Your task to perform on an android device: Go to internet settings Image 0: 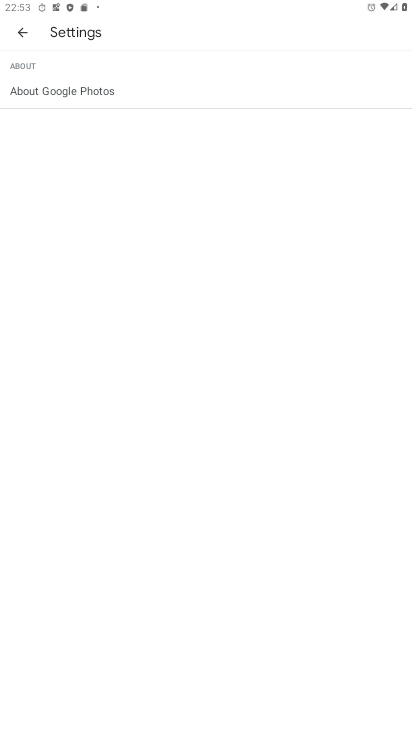
Step 0: press home button
Your task to perform on an android device: Go to internet settings Image 1: 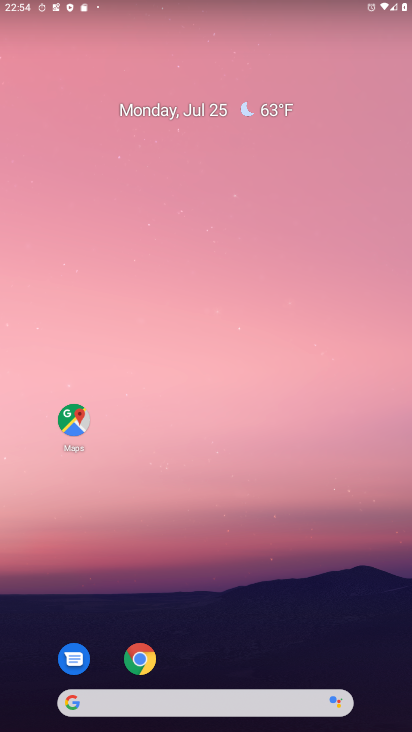
Step 1: drag from (215, 730) to (208, 79)
Your task to perform on an android device: Go to internet settings Image 2: 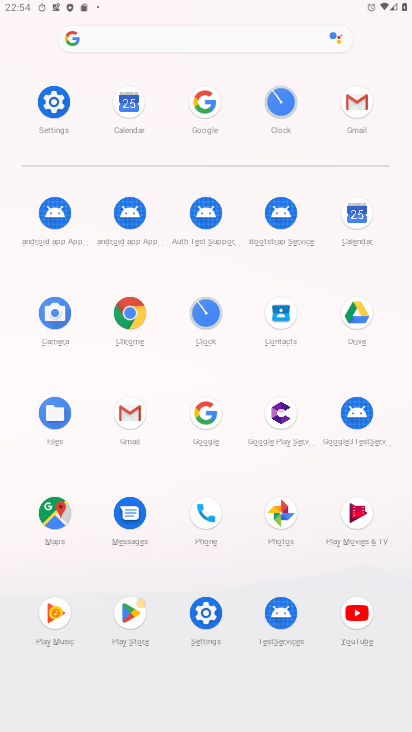
Step 2: click (51, 105)
Your task to perform on an android device: Go to internet settings Image 3: 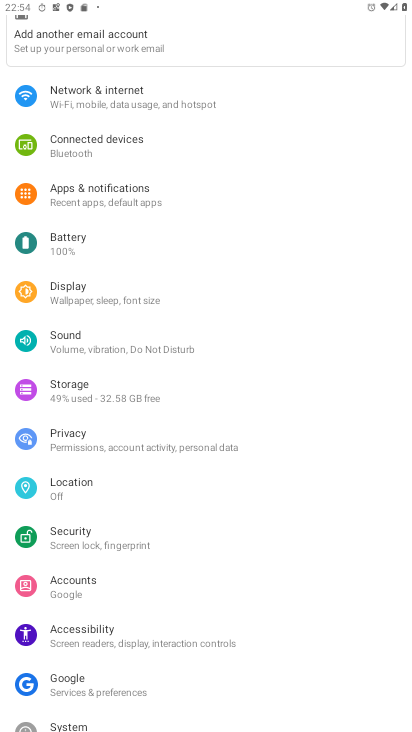
Step 3: click (98, 93)
Your task to perform on an android device: Go to internet settings Image 4: 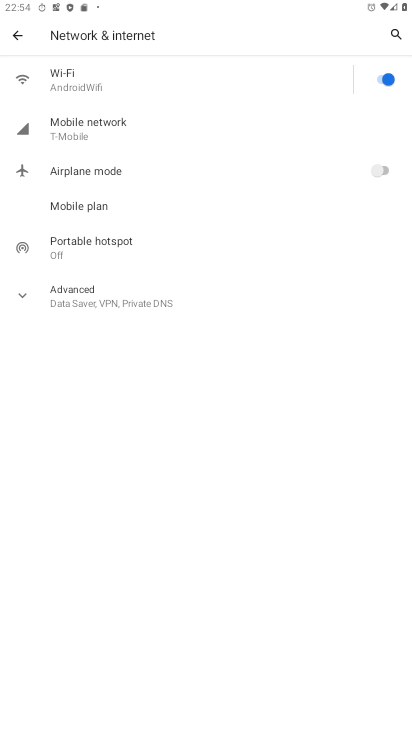
Step 4: task complete